Your task to perform on an android device: Open the calendar app, open the side menu, and click the "Day" option Image 0: 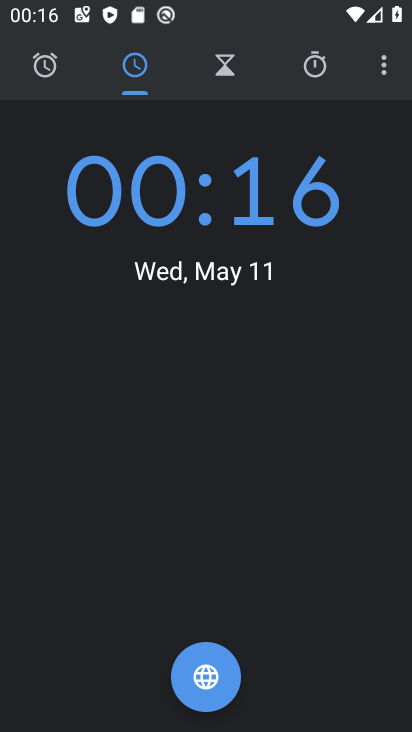
Step 0: press home button
Your task to perform on an android device: Open the calendar app, open the side menu, and click the "Day" option Image 1: 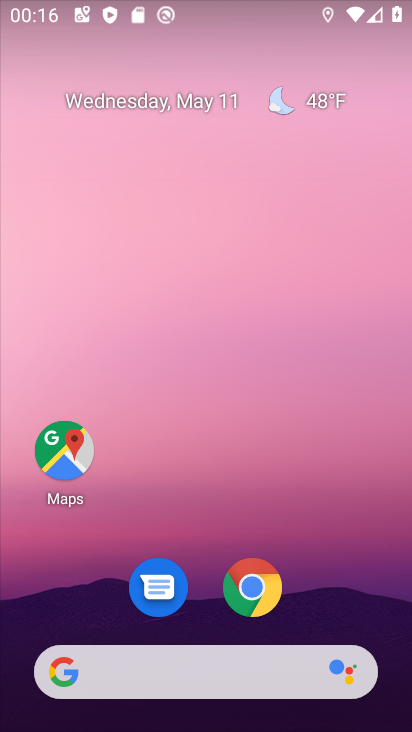
Step 1: drag from (328, 485) to (245, 41)
Your task to perform on an android device: Open the calendar app, open the side menu, and click the "Day" option Image 2: 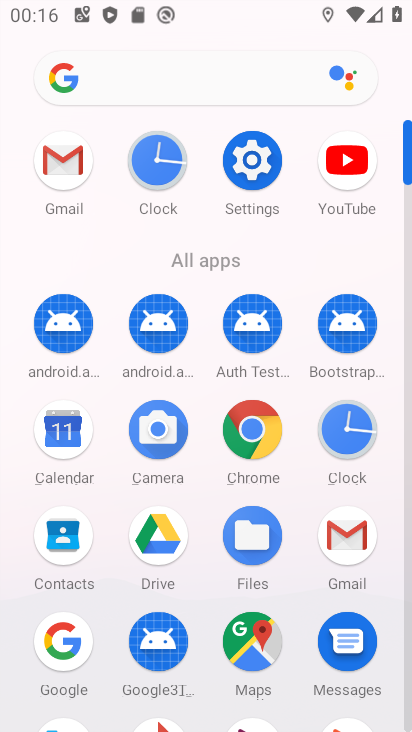
Step 2: click (74, 427)
Your task to perform on an android device: Open the calendar app, open the side menu, and click the "Day" option Image 3: 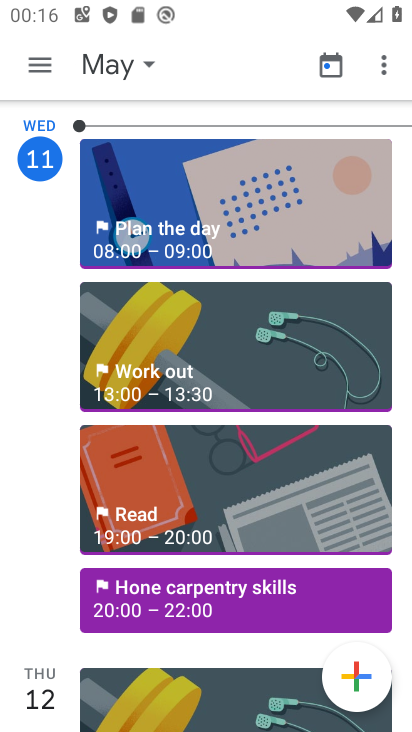
Step 3: click (30, 57)
Your task to perform on an android device: Open the calendar app, open the side menu, and click the "Day" option Image 4: 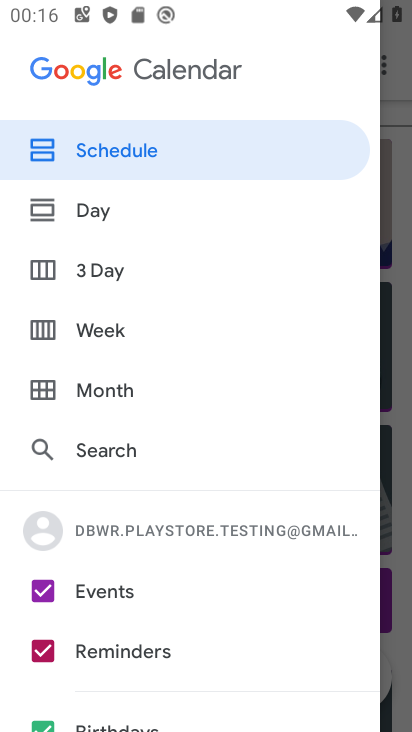
Step 4: click (102, 208)
Your task to perform on an android device: Open the calendar app, open the side menu, and click the "Day" option Image 5: 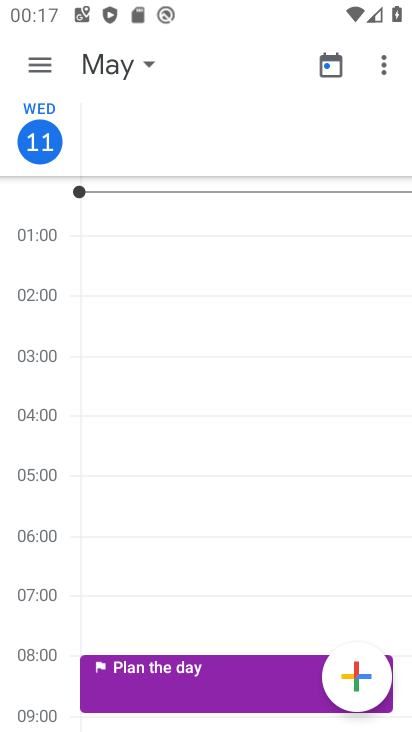
Step 5: task complete